Your task to perform on an android device: Open battery settings Image 0: 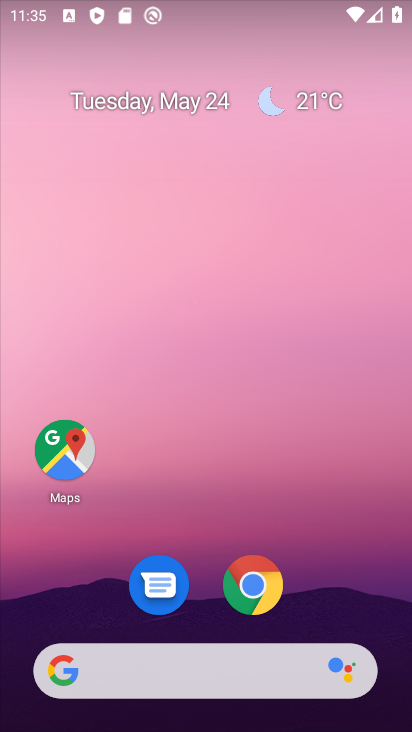
Step 0: drag from (234, 477) to (301, 0)
Your task to perform on an android device: Open battery settings Image 1: 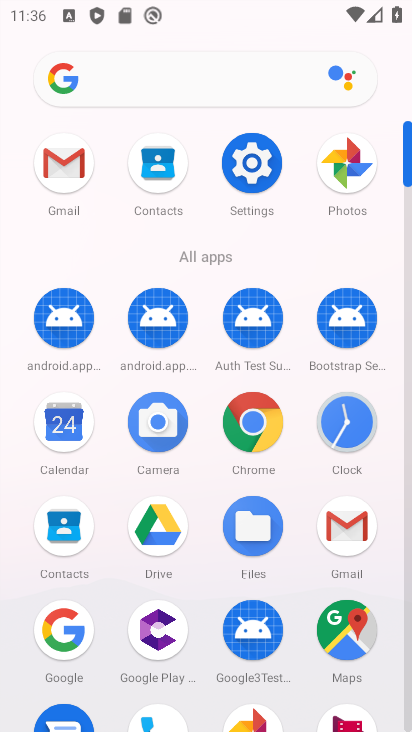
Step 1: click (248, 174)
Your task to perform on an android device: Open battery settings Image 2: 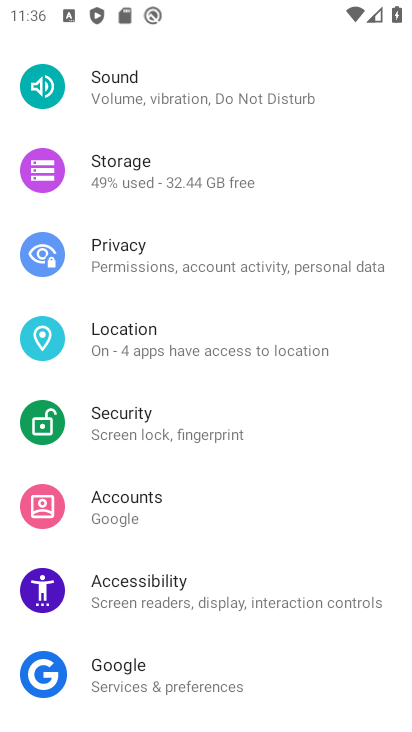
Step 2: drag from (216, 231) to (201, 617)
Your task to perform on an android device: Open battery settings Image 3: 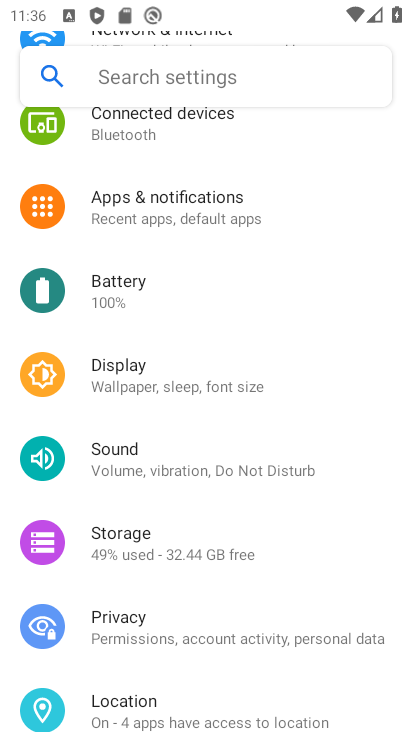
Step 3: click (182, 295)
Your task to perform on an android device: Open battery settings Image 4: 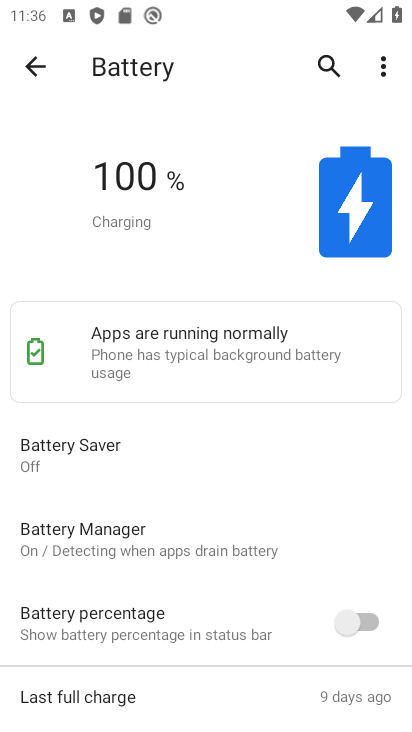
Step 4: task complete